Your task to perform on an android device: set an alarm Image 0: 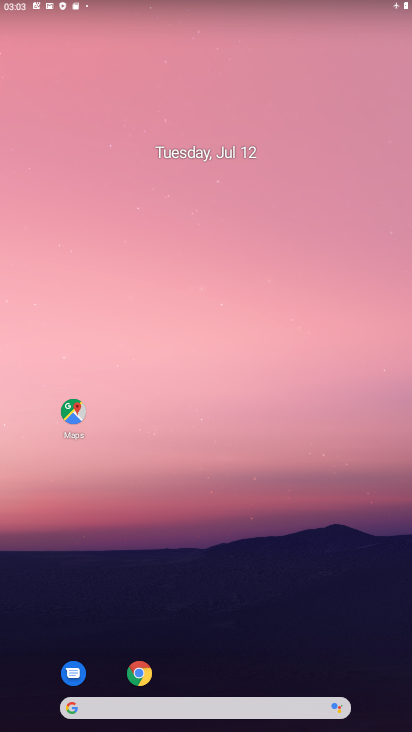
Step 0: press home button
Your task to perform on an android device: set an alarm Image 1: 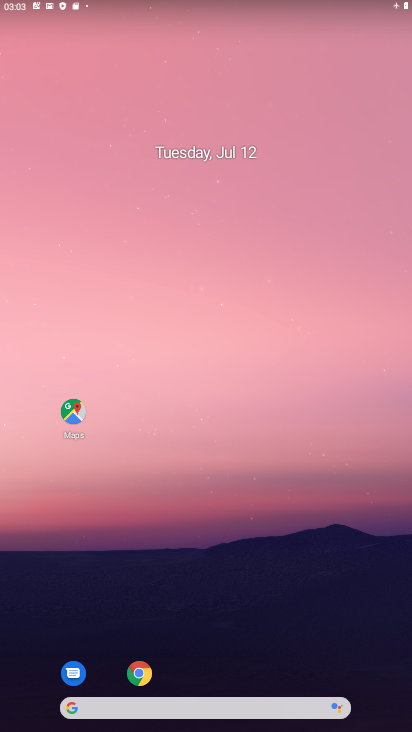
Step 1: drag from (229, 555) to (234, 86)
Your task to perform on an android device: set an alarm Image 2: 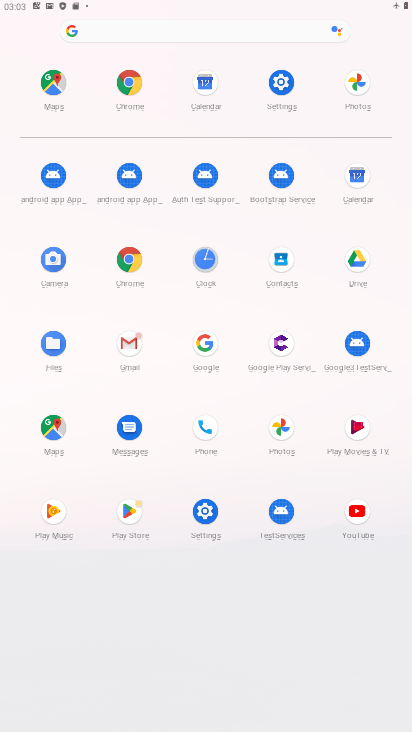
Step 2: click (204, 254)
Your task to perform on an android device: set an alarm Image 3: 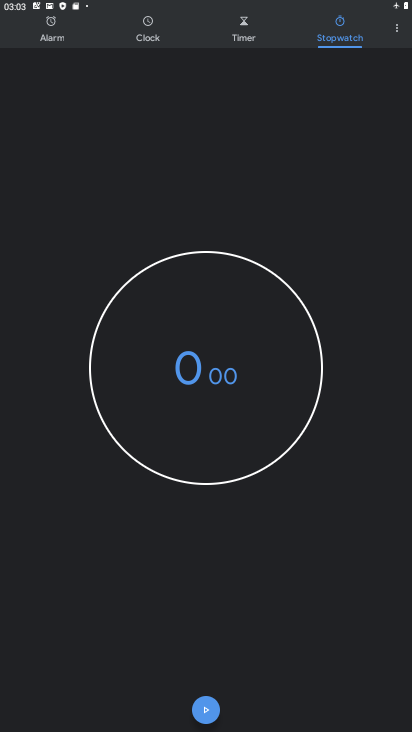
Step 3: click (49, 36)
Your task to perform on an android device: set an alarm Image 4: 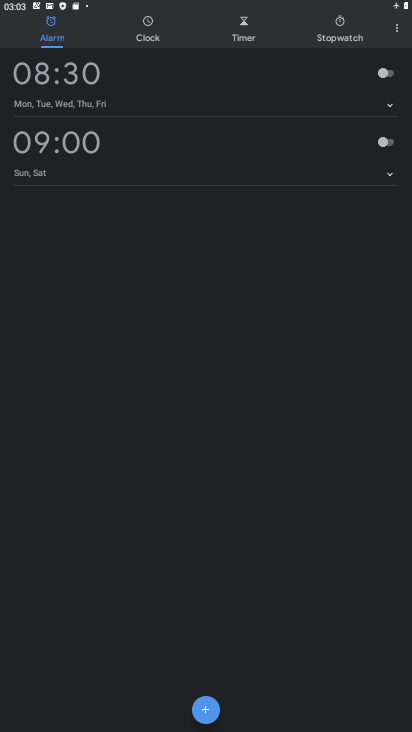
Step 4: click (204, 708)
Your task to perform on an android device: set an alarm Image 5: 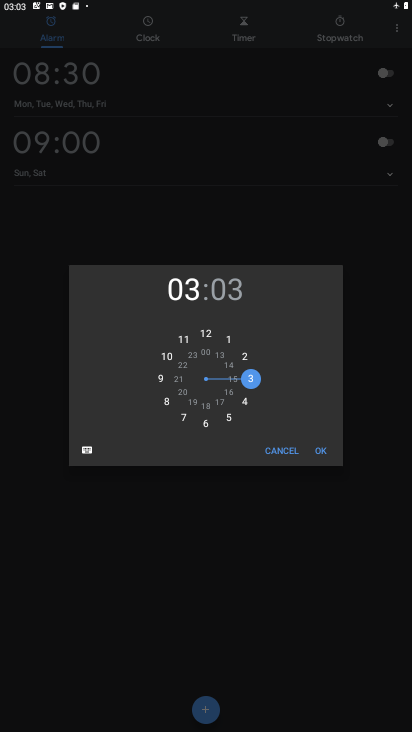
Step 5: drag from (250, 376) to (219, 409)
Your task to perform on an android device: set an alarm Image 6: 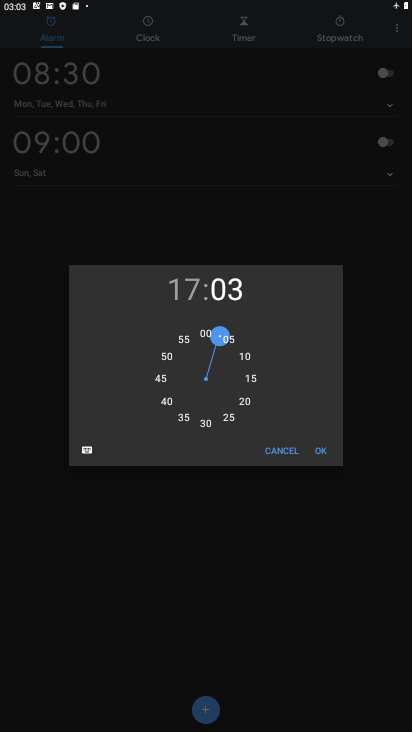
Step 6: click (319, 449)
Your task to perform on an android device: set an alarm Image 7: 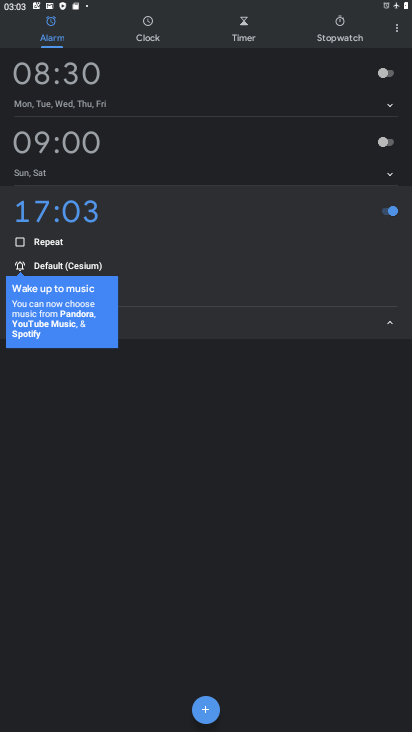
Step 7: click (185, 354)
Your task to perform on an android device: set an alarm Image 8: 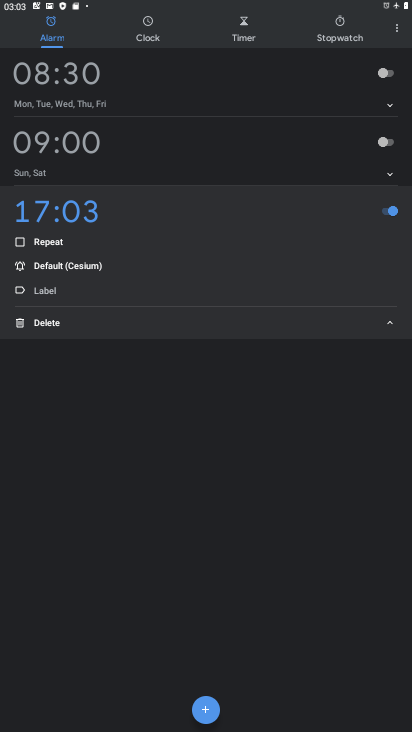
Step 8: task complete